Your task to perform on an android device: Show me recent news Image 0: 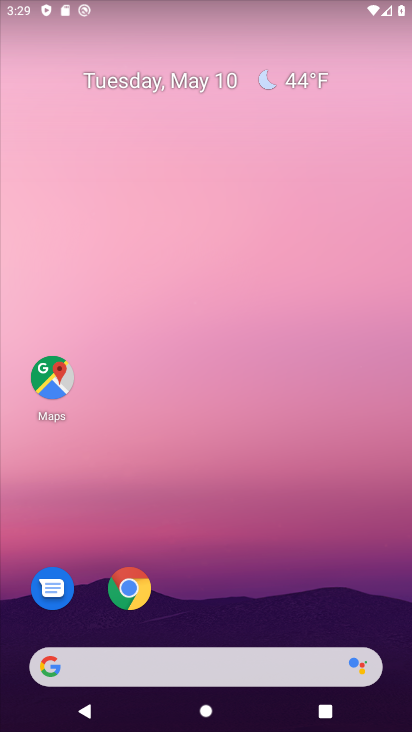
Step 0: drag from (14, 215) to (411, 204)
Your task to perform on an android device: Show me recent news Image 1: 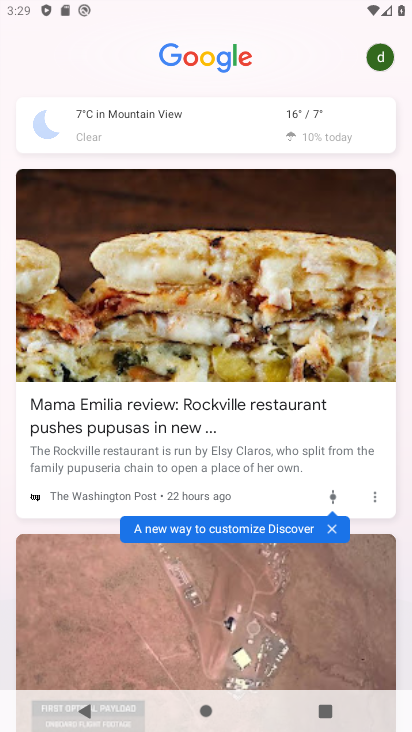
Step 1: task complete